Your task to perform on an android device: Open eBay Image 0: 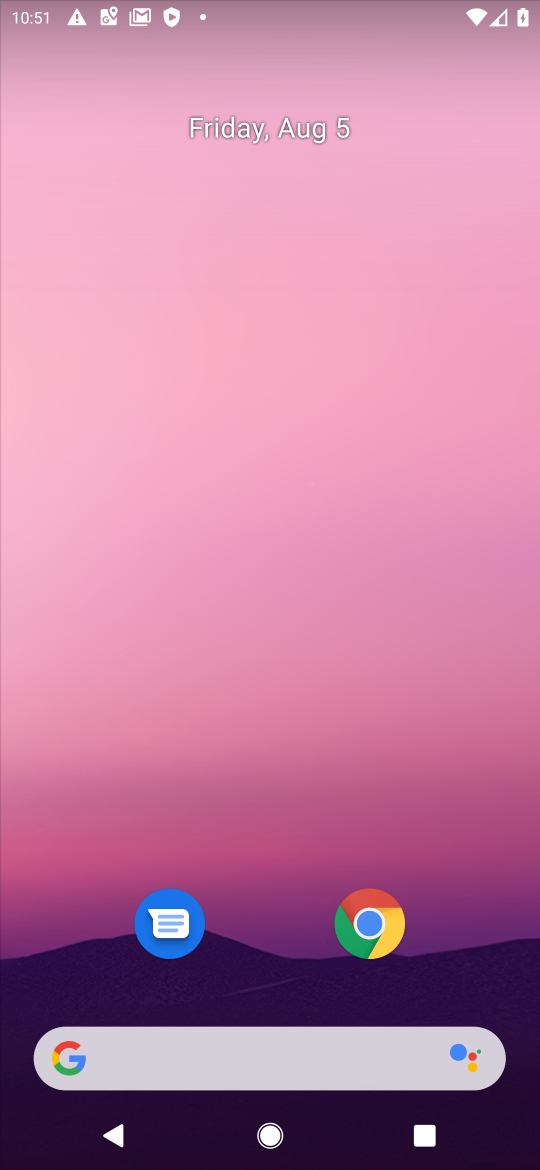
Step 0: drag from (322, 1054) to (314, 648)
Your task to perform on an android device: Open eBay Image 1: 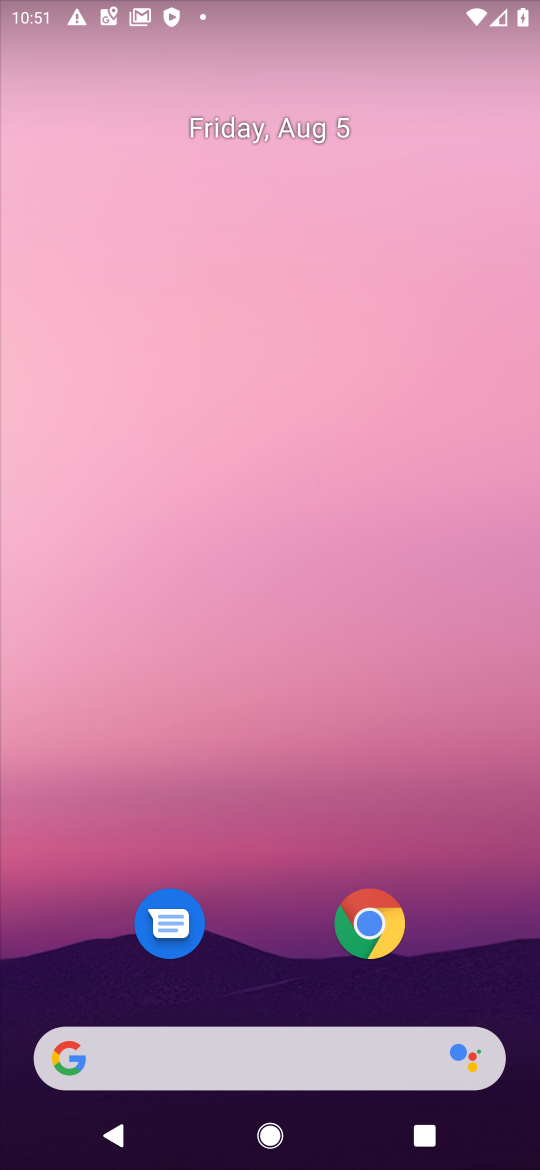
Step 1: drag from (281, 1052) to (188, 71)
Your task to perform on an android device: Open eBay Image 2: 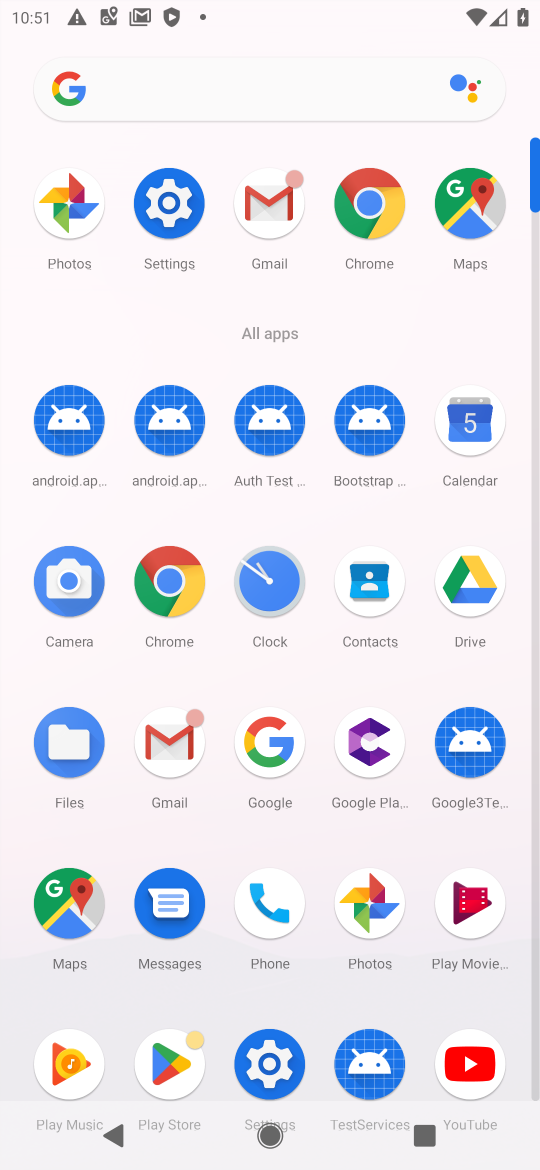
Step 2: click (155, 583)
Your task to perform on an android device: Open eBay Image 3: 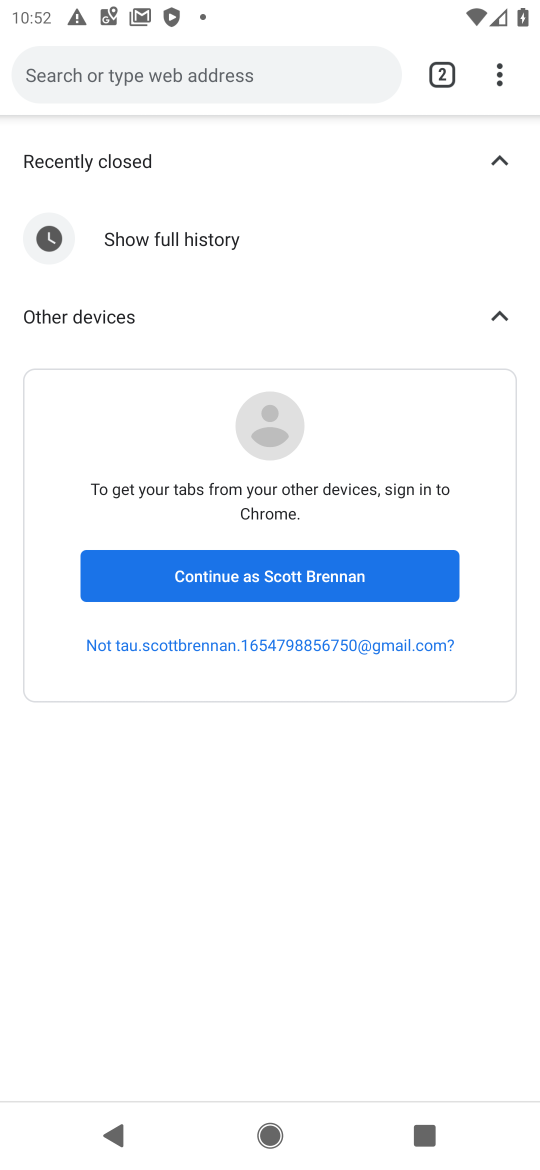
Step 3: click (489, 85)
Your task to perform on an android device: Open eBay Image 4: 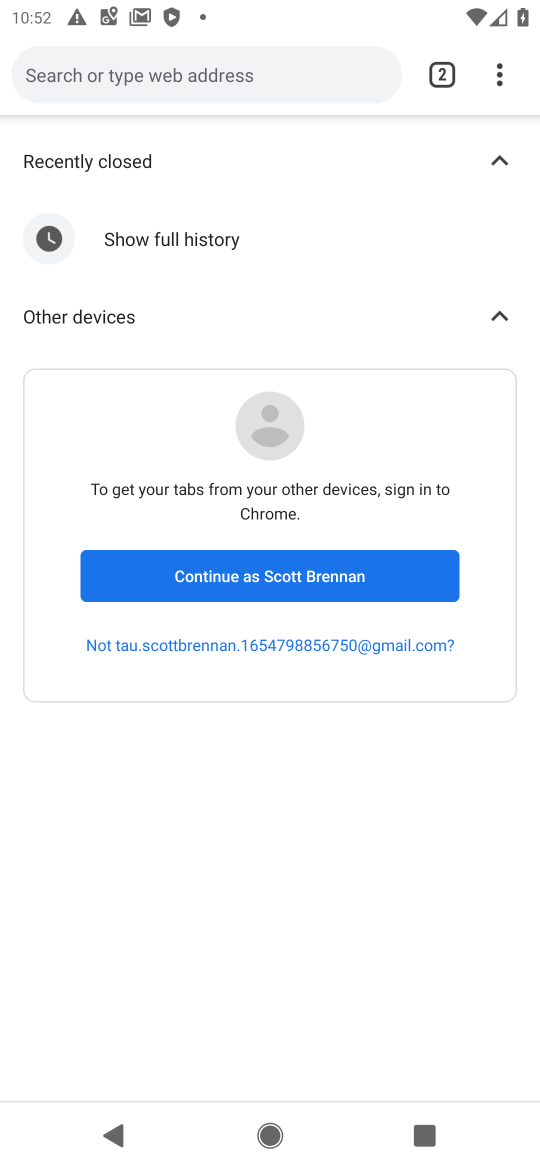
Step 4: drag from (500, 81) to (388, 162)
Your task to perform on an android device: Open eBay Image 5: 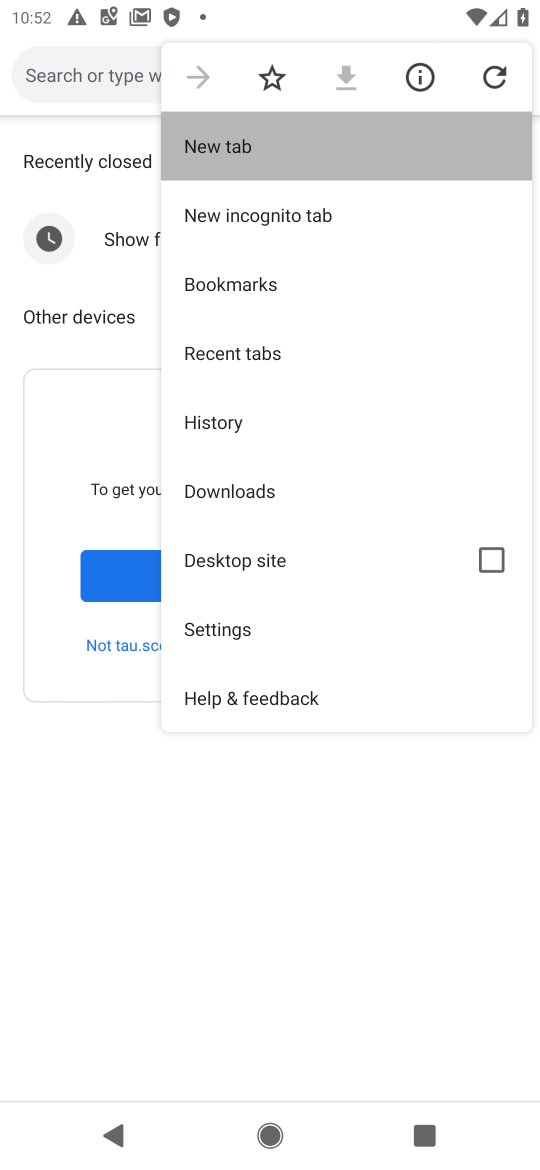
Step 5: click (388, 162)
Your task to perform on an android device: Open eBay Image 6: 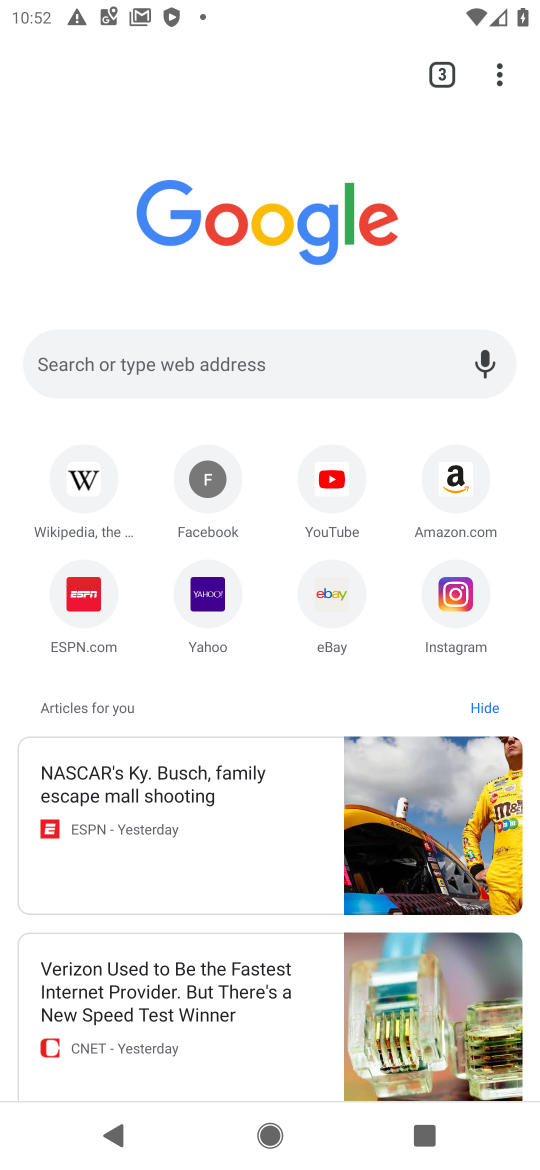
Step 6: click (332, 593)
Your task to perform on an android device: Open eBay Image 7: 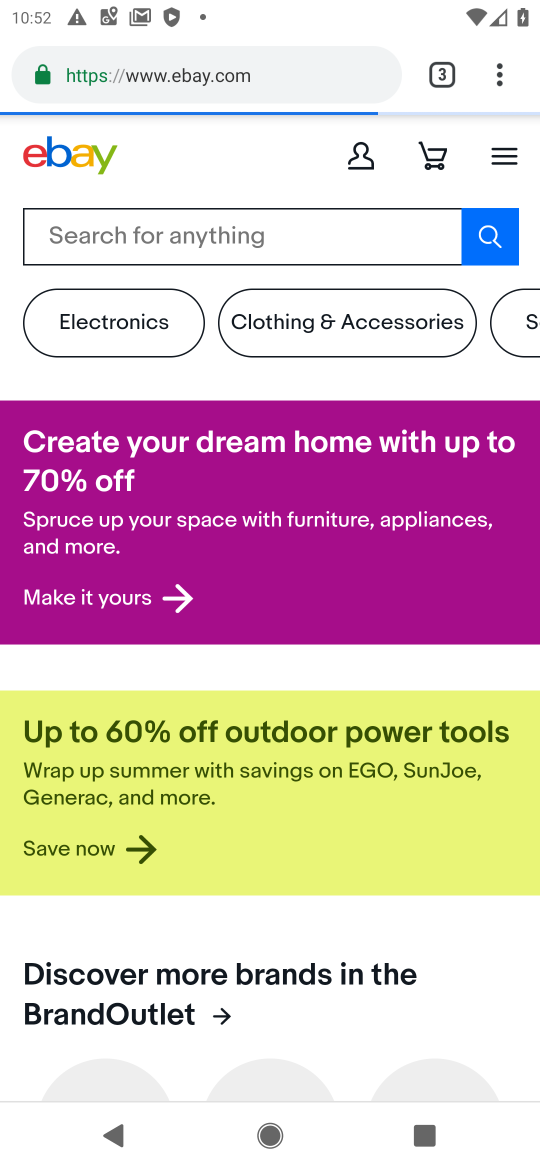
Step 7: task complete